Your task to perform on an android device: What's on the menu at Denny's? Image 0: 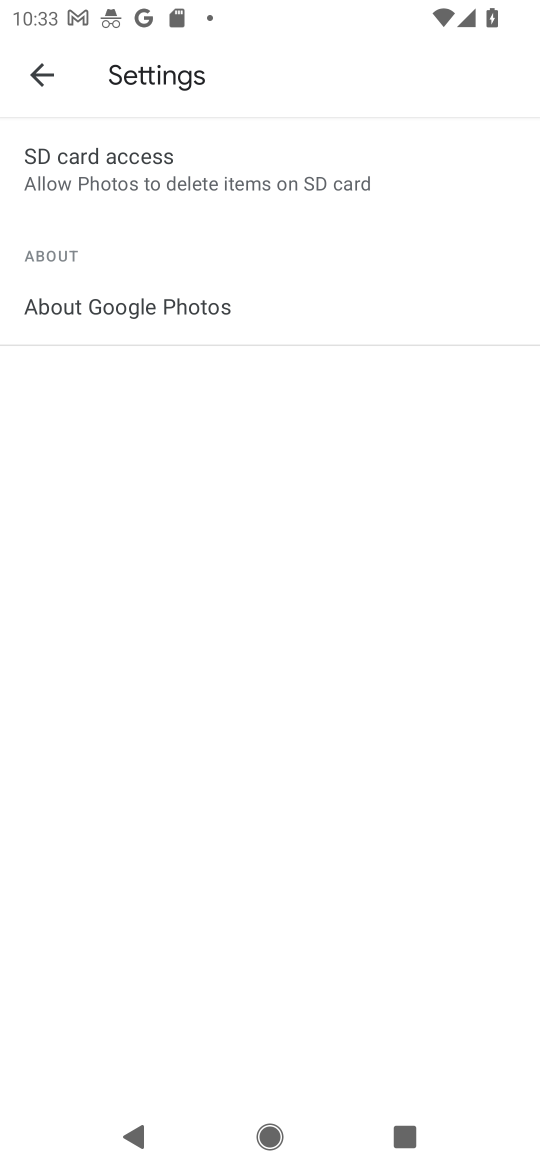
Step 0: press home button
Your task to perform on an android device: What's on the menu at Denny's? Image 1: 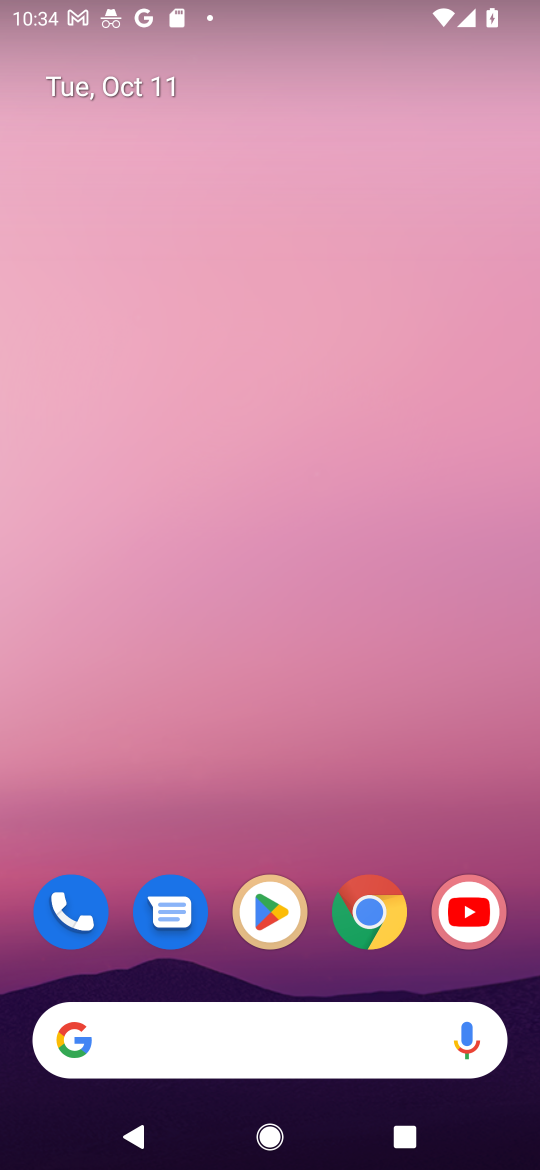
Step 1: click (370, 909)
Your task to perform on an android device: What's on the menu at Denny's? Image 2: 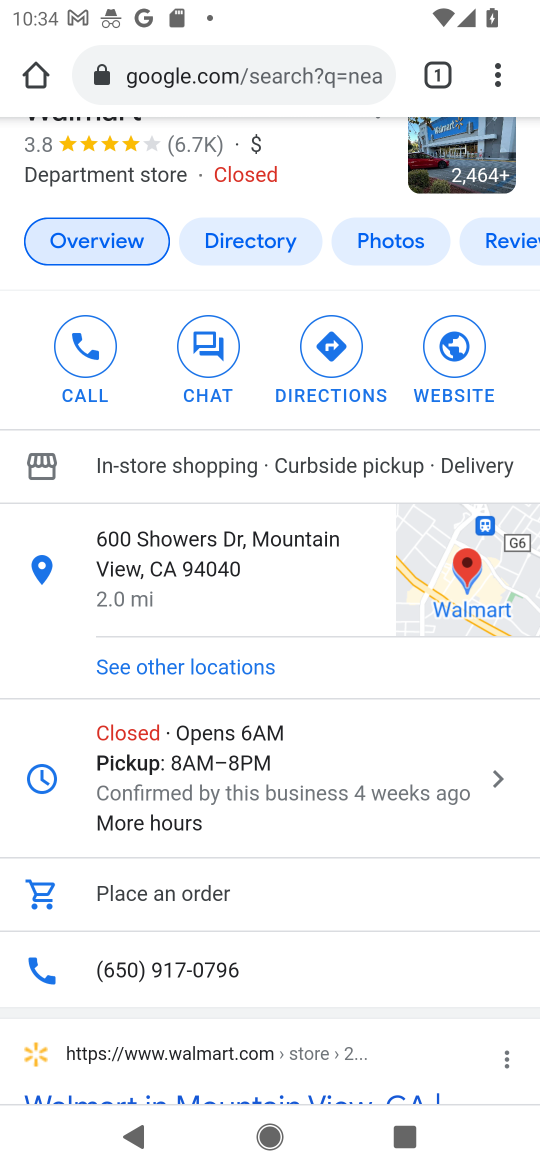
Step 2: click (266, 49)
Your task to perform on an android device: What's on the menu at Denny's? Image 3: 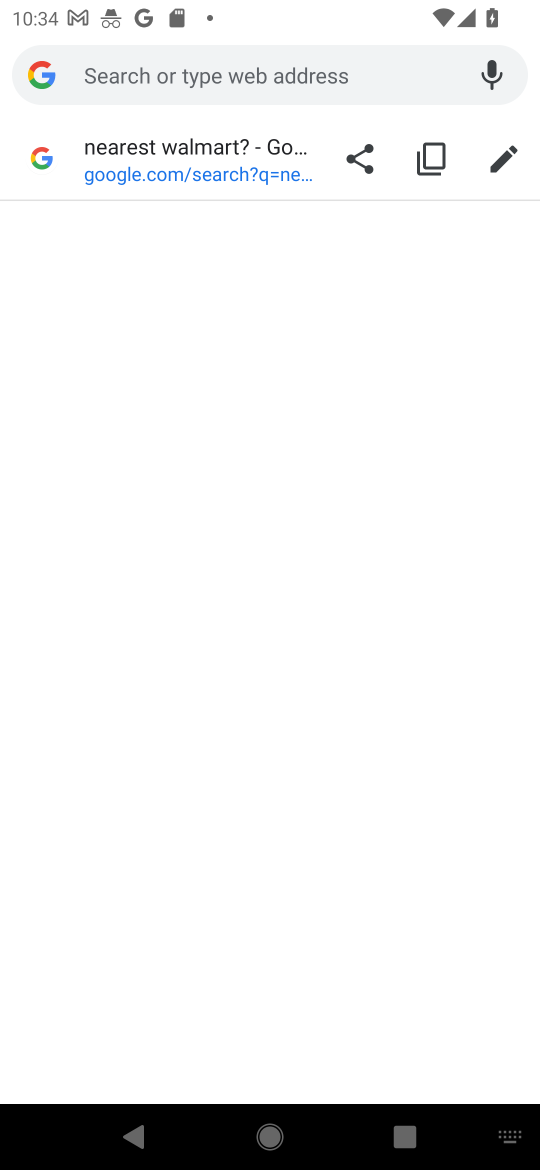
Step 3: type " menu at Denny's?"
Your task to perform on an android device: What's on the menu at Denny's? Image 4: 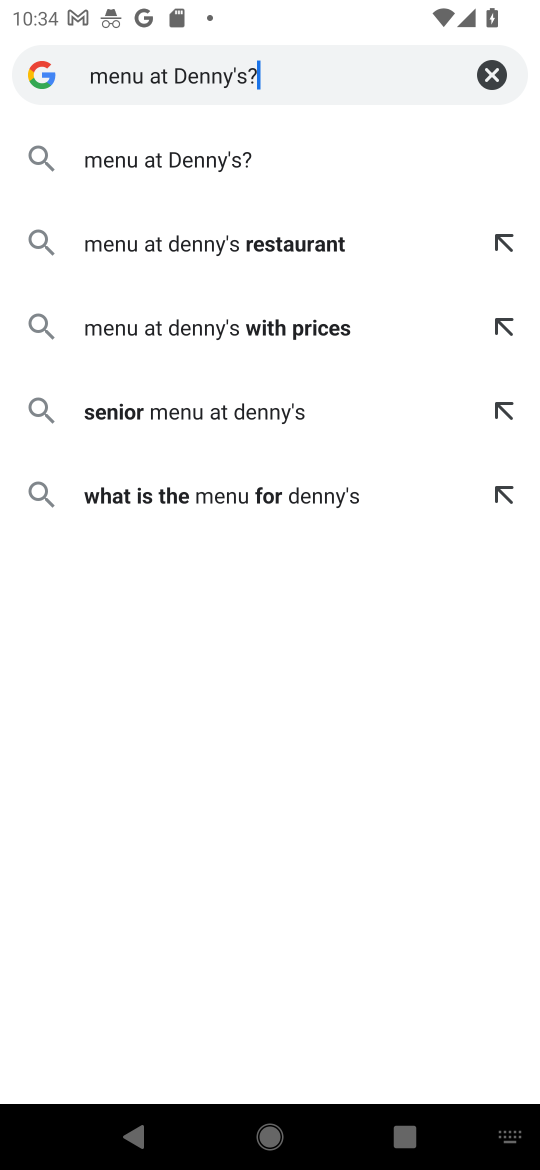
Step 4: click (102, 159)
Your task to perform on an android device: What's on the menu at Denny's? Image 5: 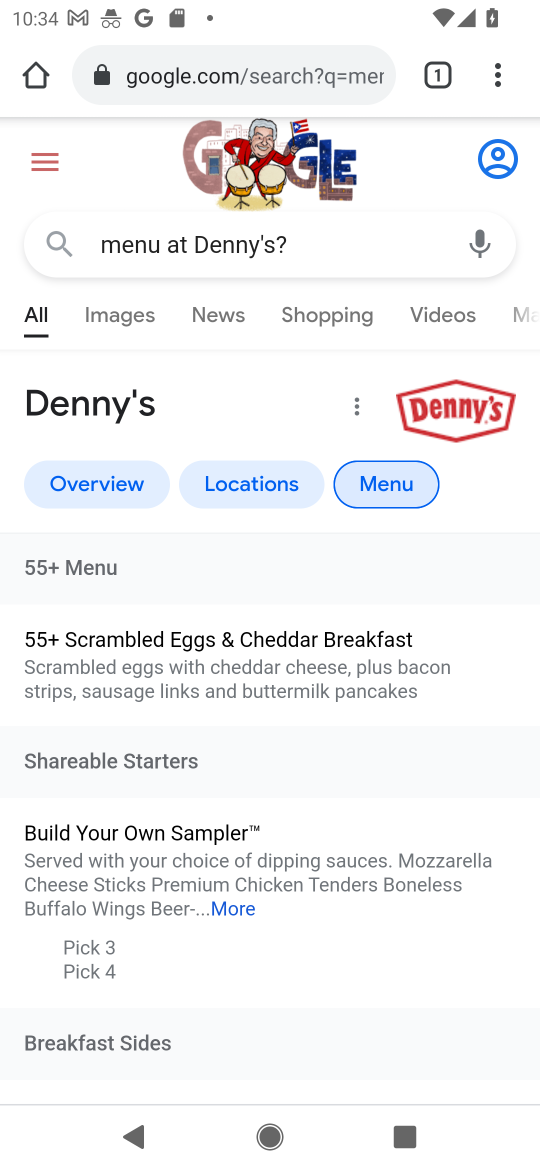
Step 5: drag from (258, 730) to (300, 123)
Your task to perform on an android device: What's on the menu at Denny's? Image 6: 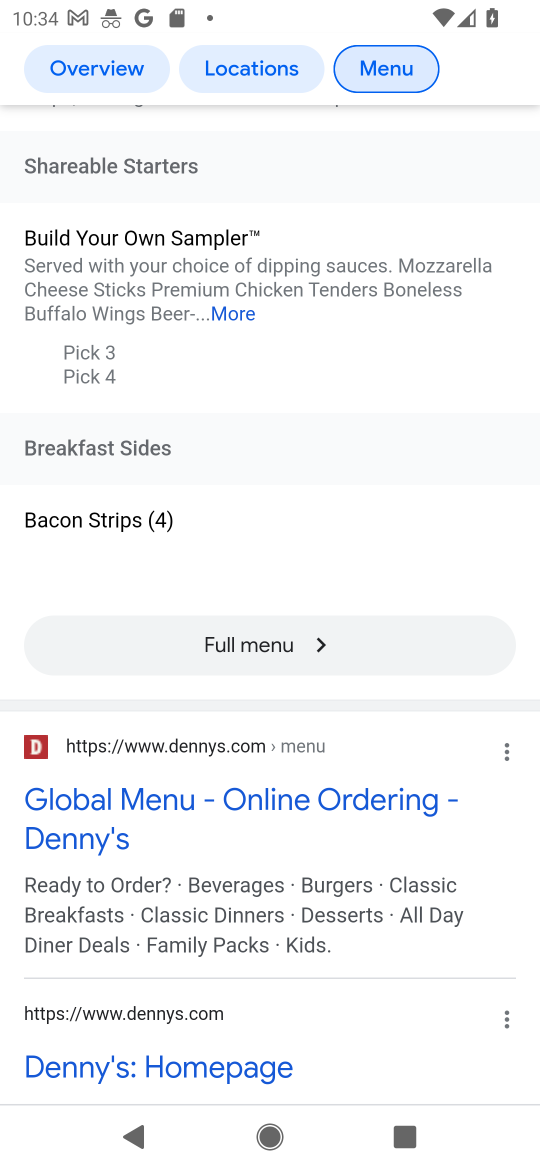
Step 6: drag from (310, 964) to (318, 279)
Your task to perform on an android device: What's on the menu at Denny's? Image 7: 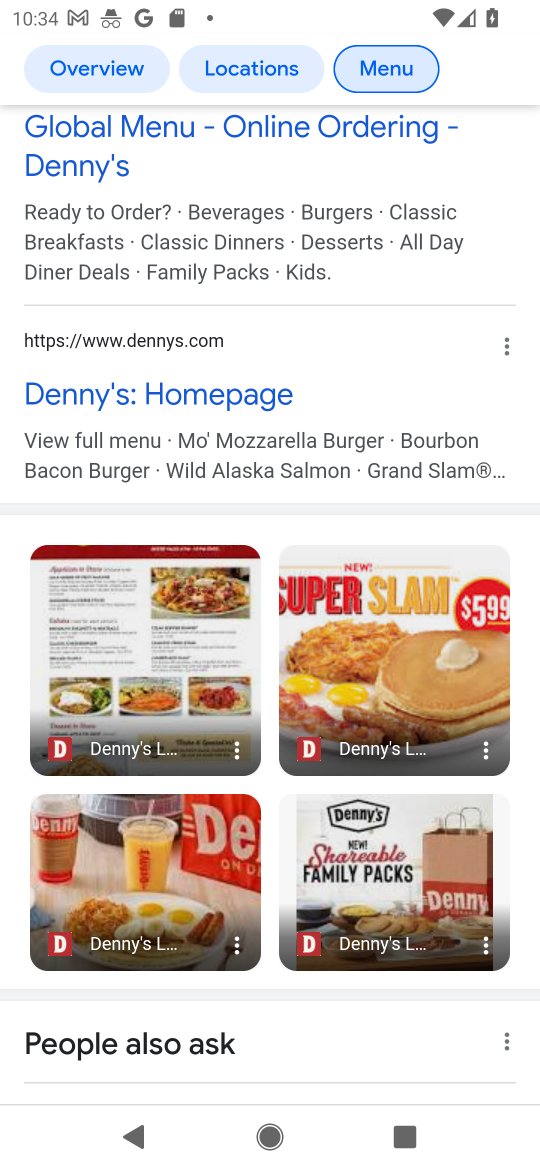
Step 7: drag from (274, 511) to (257, 3)
Your task to perform on an android device: What's on the menu at Denny's? Image 8: 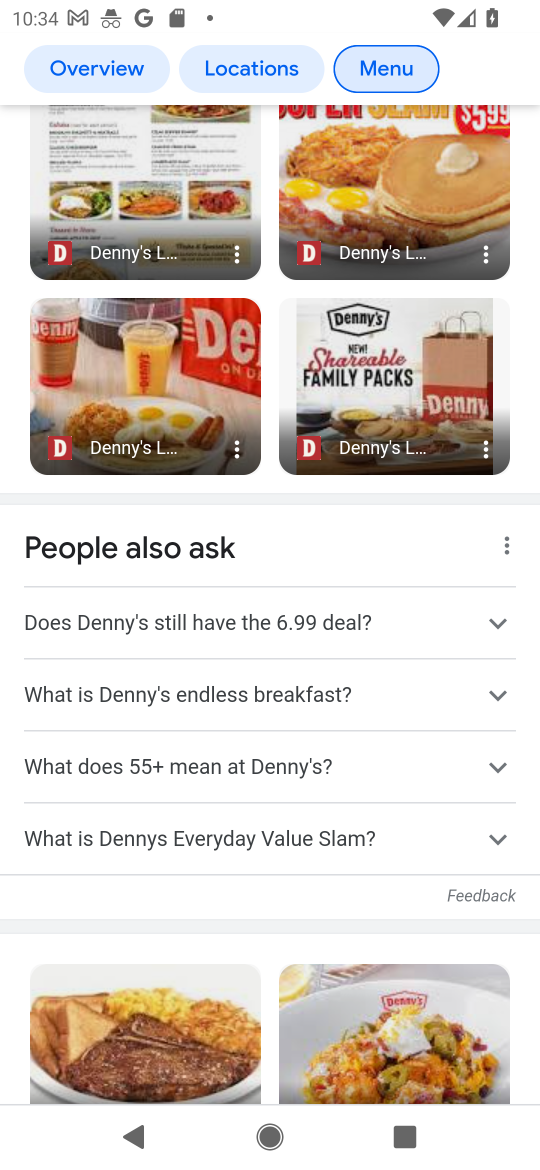
Step 8: drag from (293, 940) to (254, 298)
Your task to perform on an android device: What's on the menu at Denny's? Image 9: 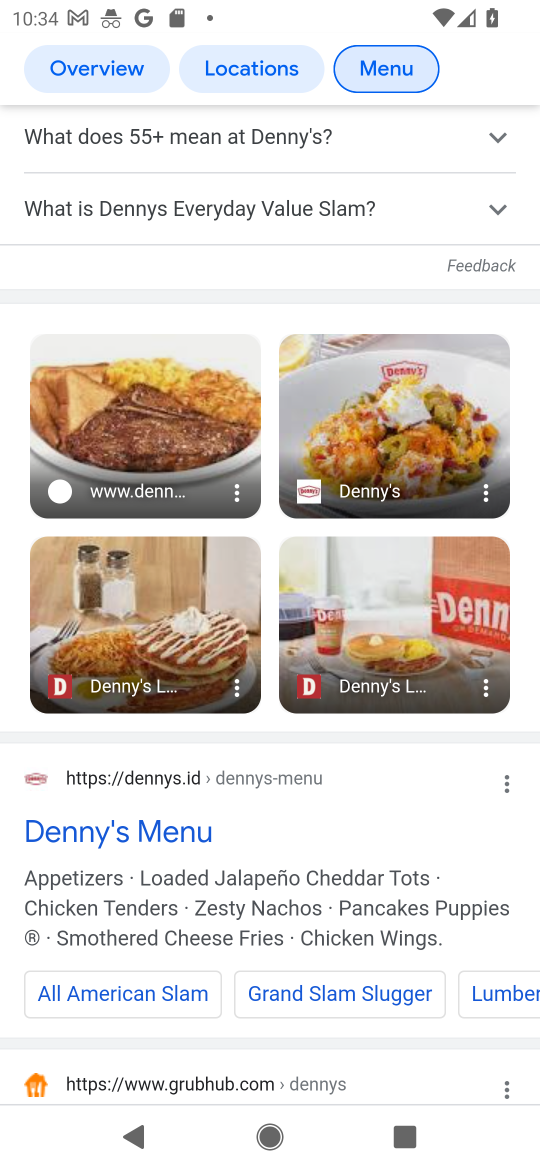
Step 9: click (375, 73)
Your task to perform on an android device: What's on the menu at Denny's? Image 10: 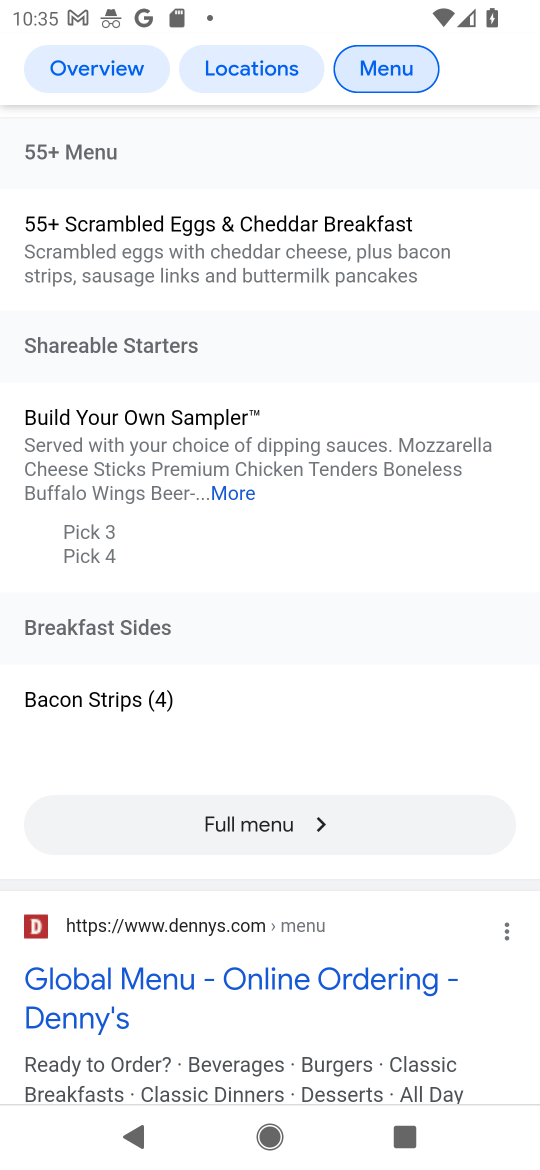
Step 10: drag from (143, 963) to (207, 472)
Your task to perform on an android device: What's on the menu at Denny's? Image 11: 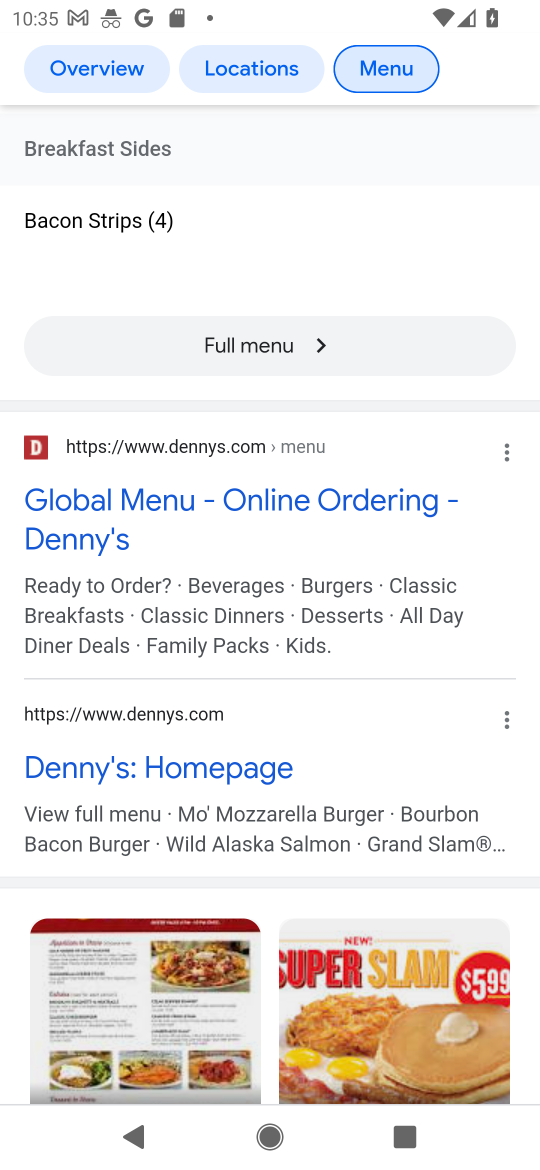
Step 11: drag from (197, 860) to (169, 360)
Your task to perform on an android device: What's on the menu at Denny's? Image 12: 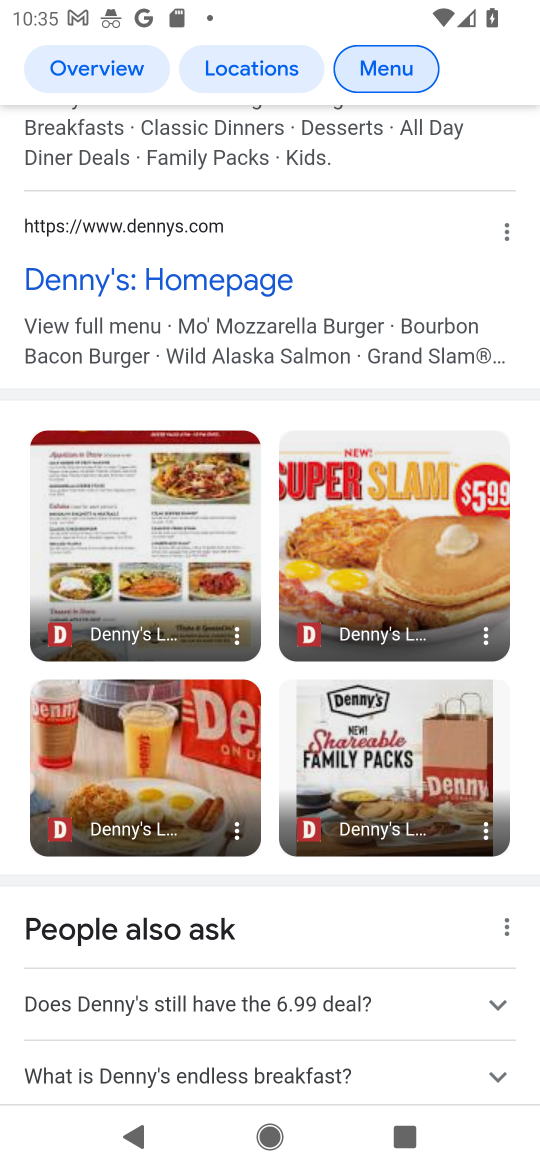
Step 12: drag from (250, 881) to (258, 233)
Your task to perform on an android device: What's on the menu at Denny's? Image 13: 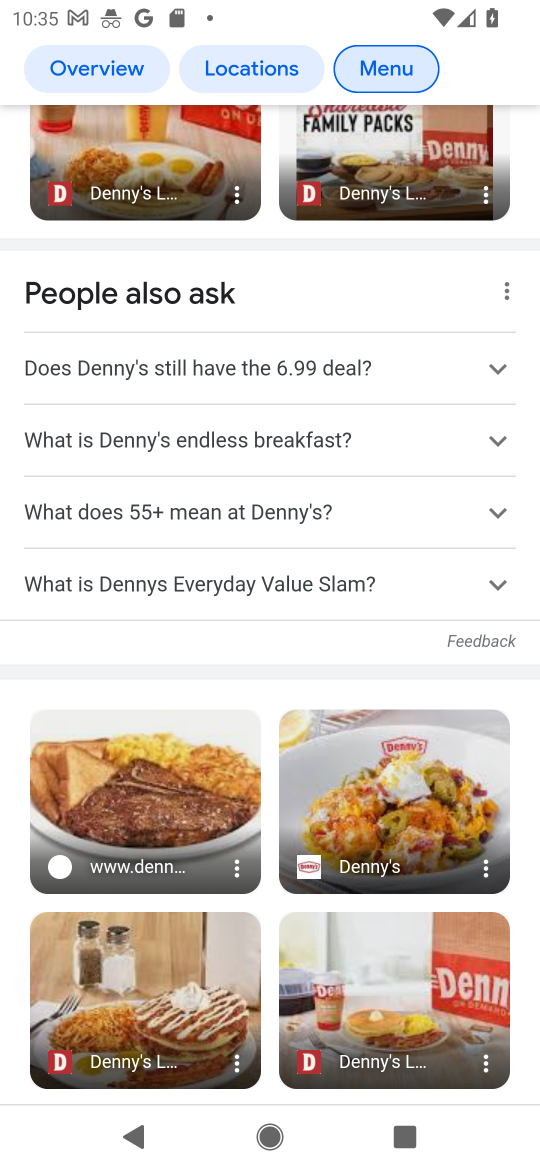
Step 13: drag from (270, 893) to (321, 227)
Your task to perform on an android device: What's on the menu at Denny's? Image 14: 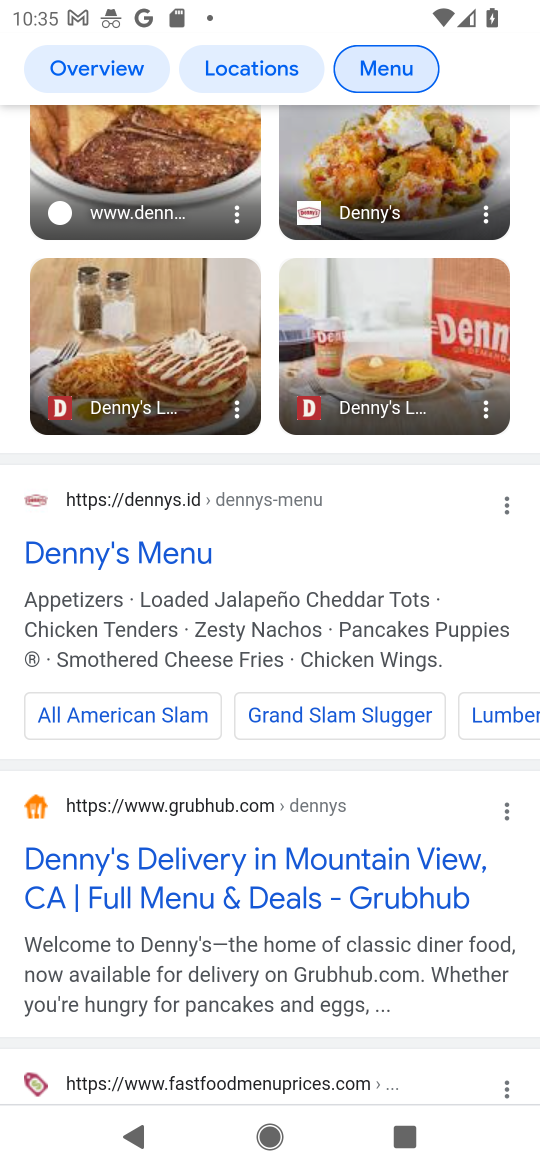
Step 14: click (97, 566)
Your task to perform on an android device: What's on the menu at Denny's? Image 15: 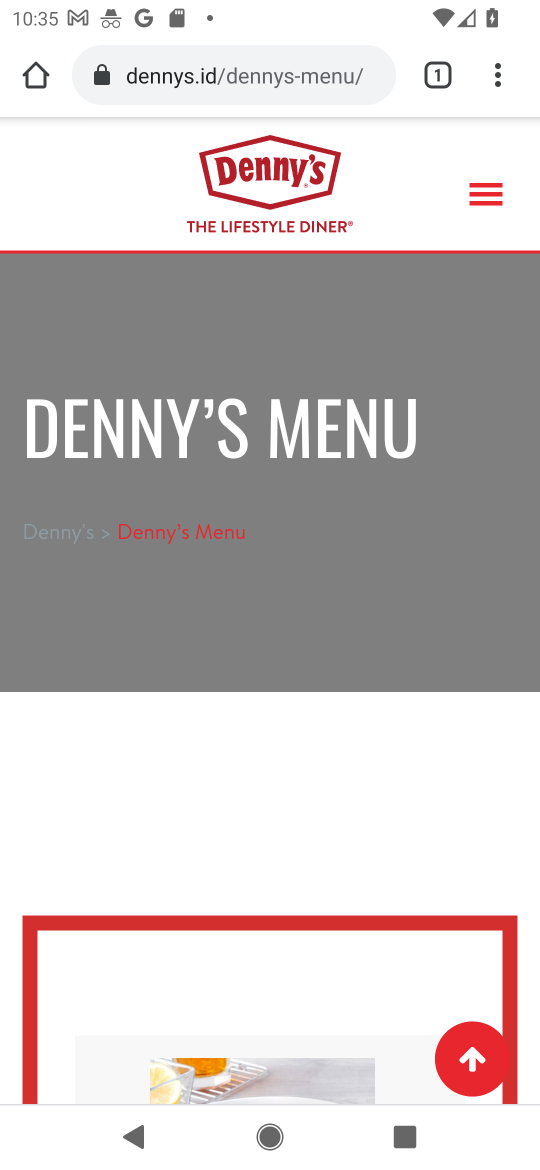
Step 15: task complete